Your task to perform on an android device: create a new album in the google photos Image 0: 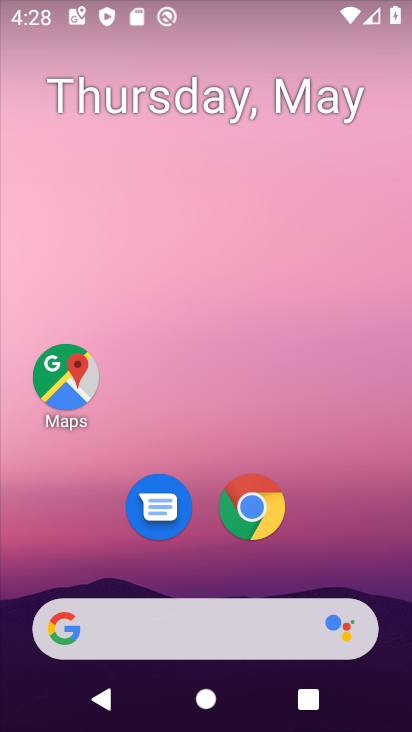
Step 0: drag from (271, 656) to (193, 46)
Your task to perform on an android device: create a new album in the google photos Image 1: 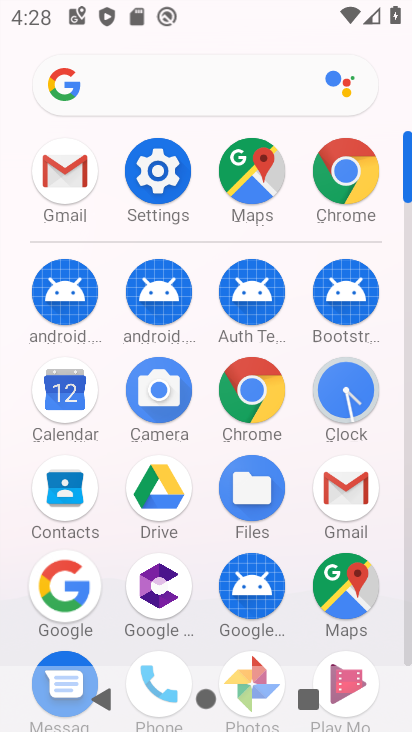
Step 1: drag from (285, 601) to (259, 77)
Your task to perform on an android device: create a new album in the google photos Image 2: 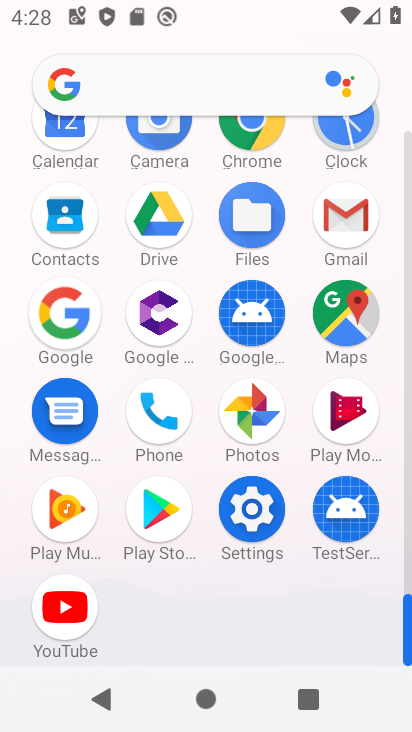
Step 2: click (250, 416)
Your task to perform on an android device: create a new album in the google photos Image 3: 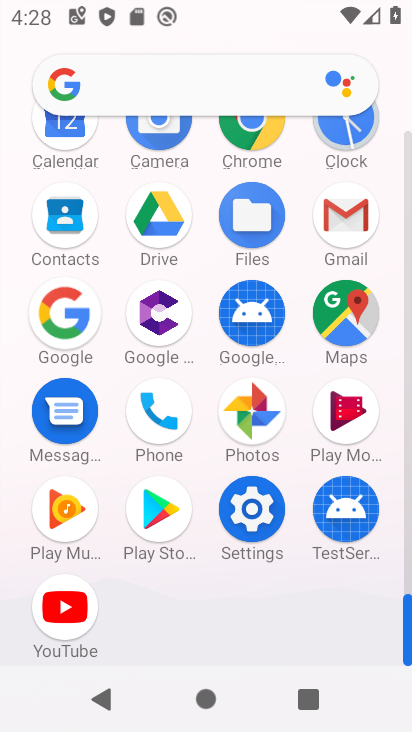
Step 3: click (250, 417)
Your task to perform on an android device: create a new album in the google photos Image 4: 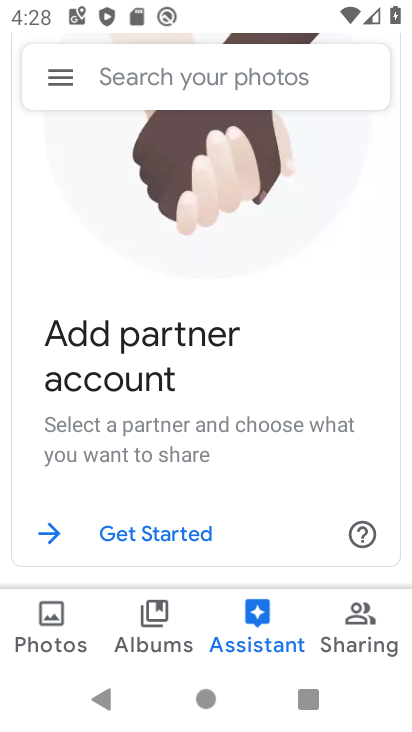
Step 4: click (161, 612)
Your task to perform on an android device: create a new album in the google photos Image 5: 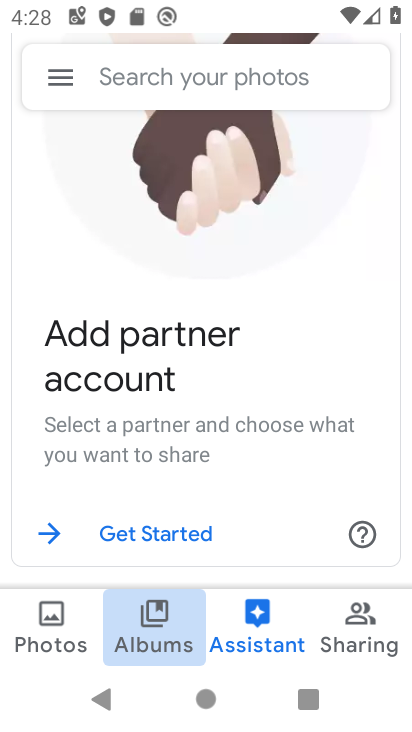
Step 5: click (160, 613)
Your task to perform on an android device: create a new album in the google photos Image 6: 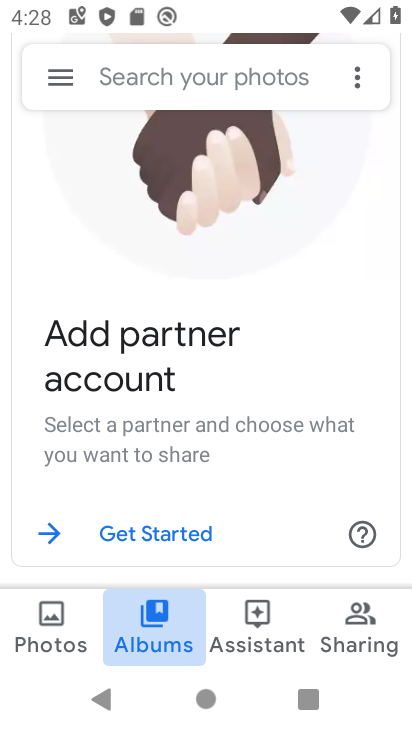
Step 6: click (154, 623)
Your task to perform on an android device: create a new album in the google photos Image 7: 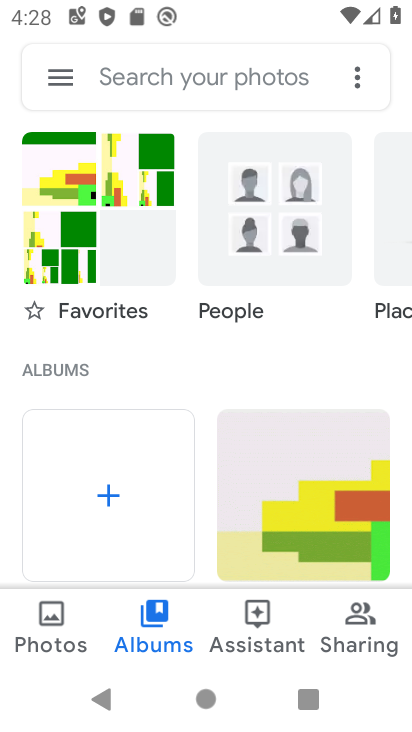
Step 7: click (361, 77)
Your task to perform on an android device: create a new album in the google photos Image 8: 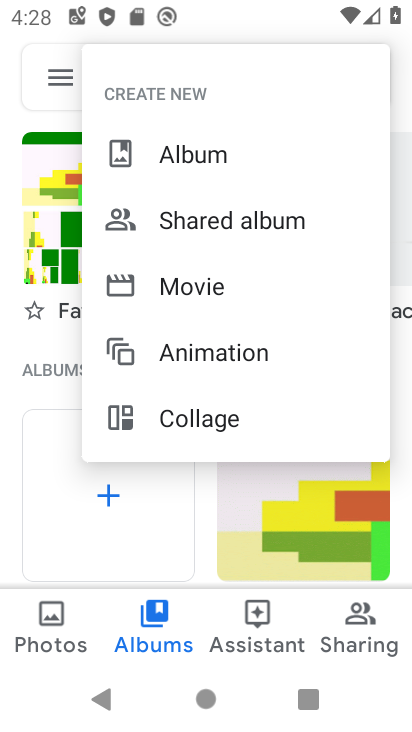
Step 8: click (167, 144)
Your task to perform on an android device: create a new album in the google photos Image 9: 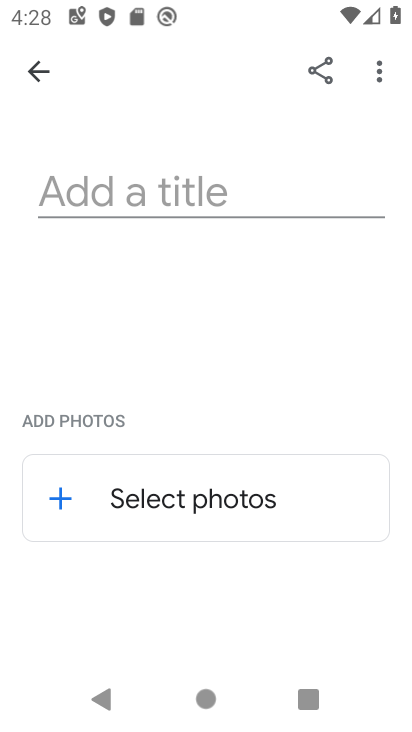
Step 9: click (145, 488)
Your task to perform on an android device: create a new album in the google photos Image 10: 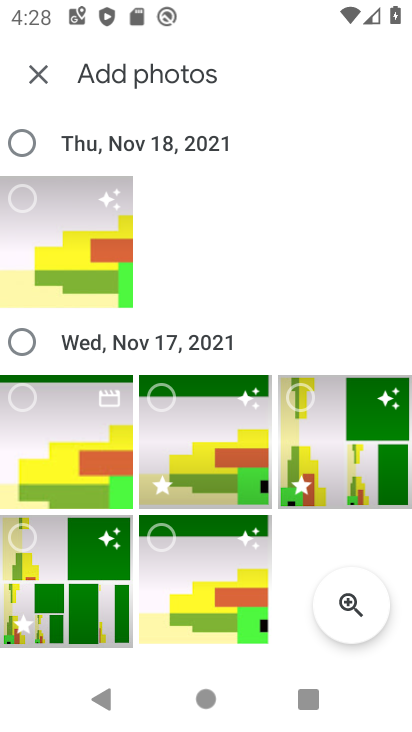
Step 10: click (18, 189)
Your task to perform on an android device: create a new album in the google photos Image 11: 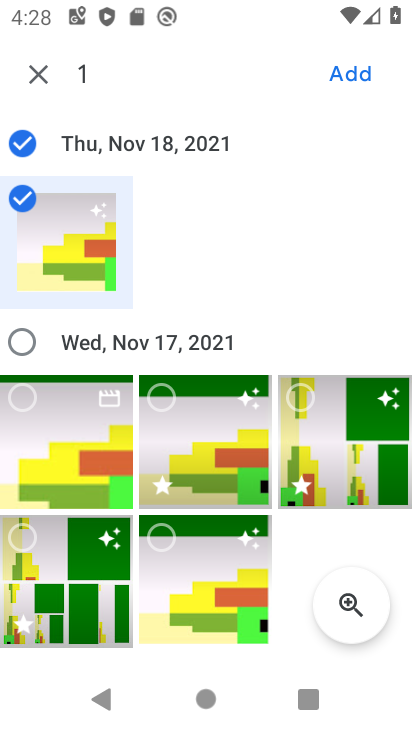
Step 11: click (356, 73)
Your task to perform on an android device: create a new album in the google photos Image 12: 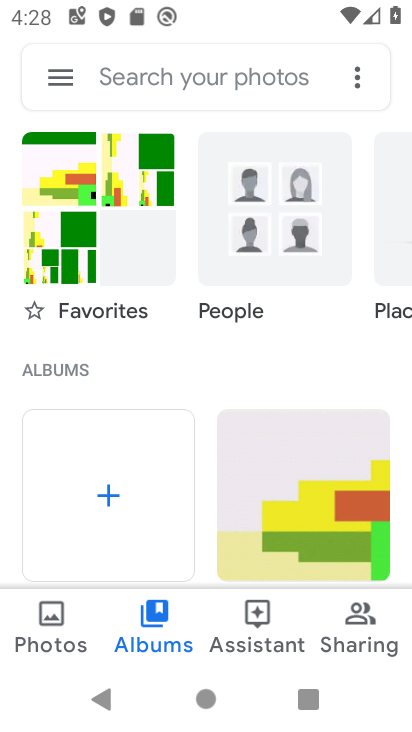
Step 12: click (103, 496)
Your task to perform on an android device: create a new album in the google photos Image 13: 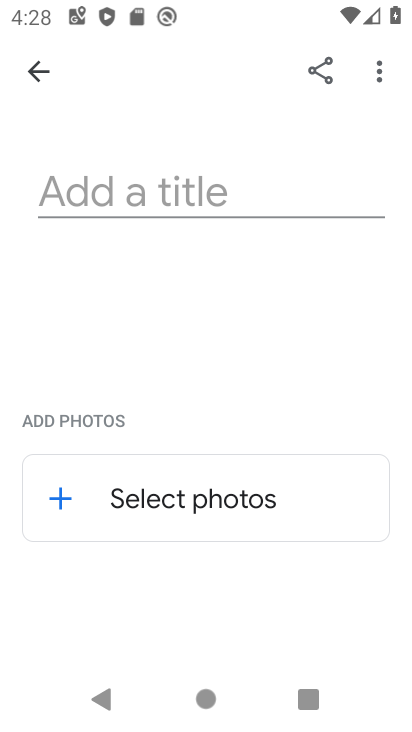
Step 13: click (187, 489)
Your task to perform on an android device: create a new album in the google photos Image 14: 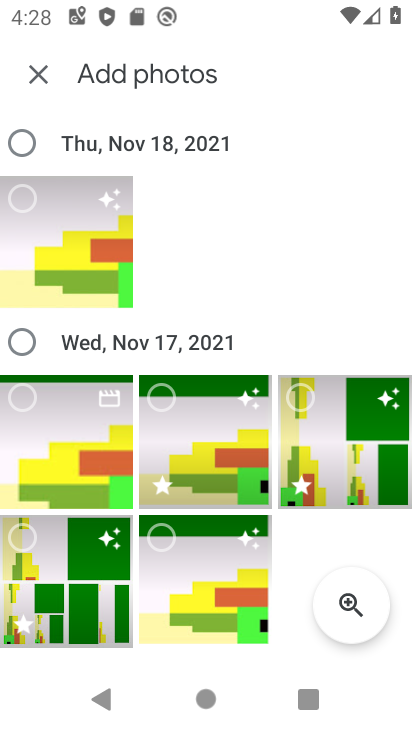
Step 14: click (76, 186)
Your task to perform on an android device: create a new album in the google photos Image 15: 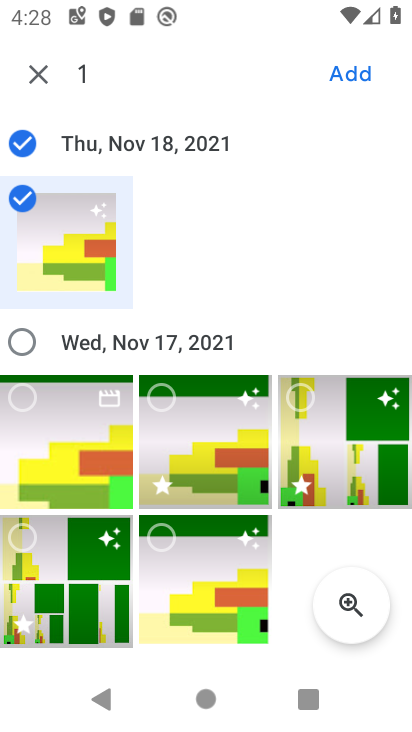
Step 15: click (22, 146)
Your task to perform on an android device: create a new album in the google photos Image 16: 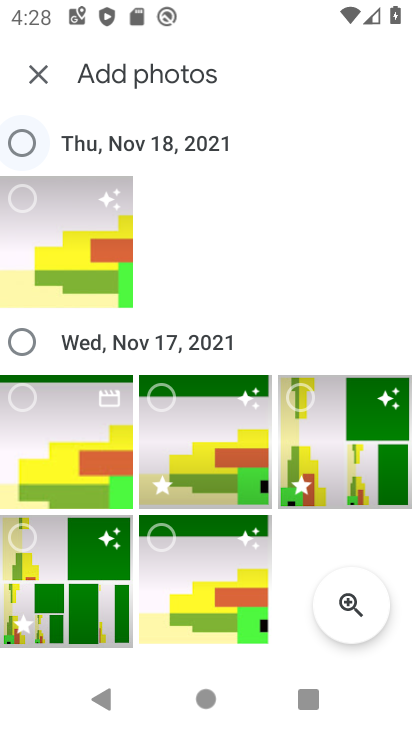
Step 16: click (334, 65)
Your task to perform on an android device: create a new album in the google photos Image 17: 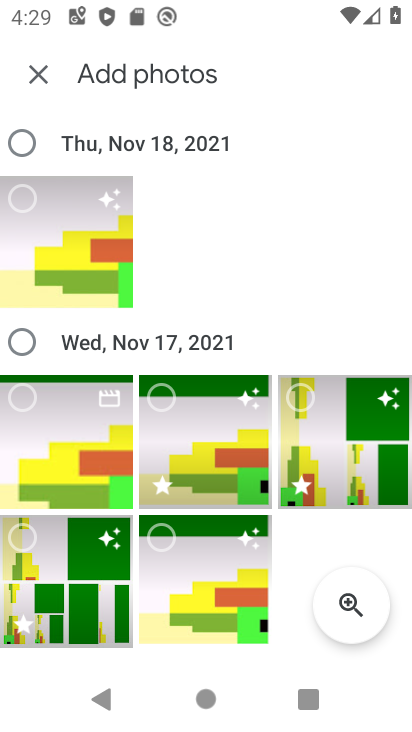
Step 17: click (34, 147)
Your task to perform on an android device: create a new album in the google photos Image 18: 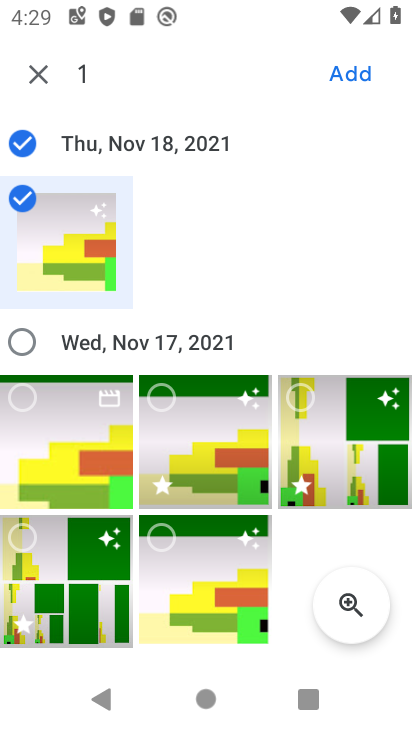
Step 18: click (365, 78)
Your task to perform on an android device: create a new album in the google photos Image 19: 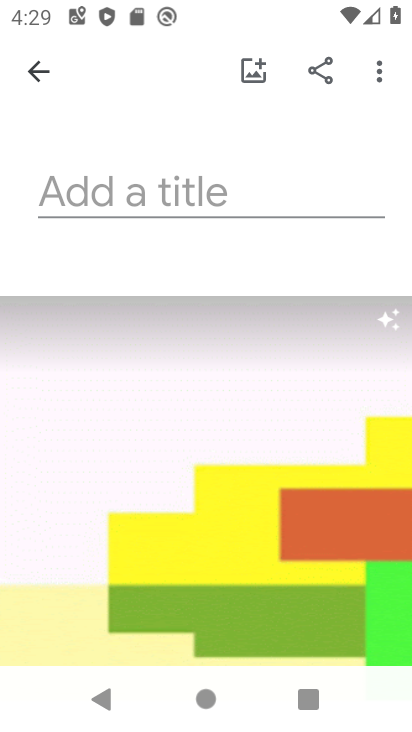
Step 19: click (101, 184)
Your task to perform on an android device: create a new album in the google photos Image 20: 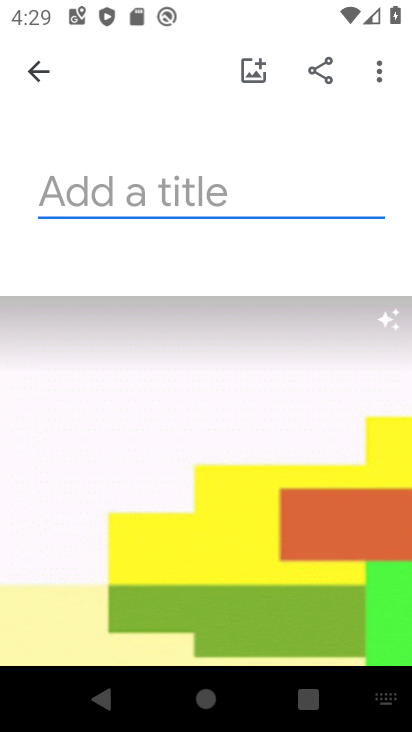
Step 20: type "gdgfuyu"
Your task to perform on an android device: create a new album in the google photos Image 21: 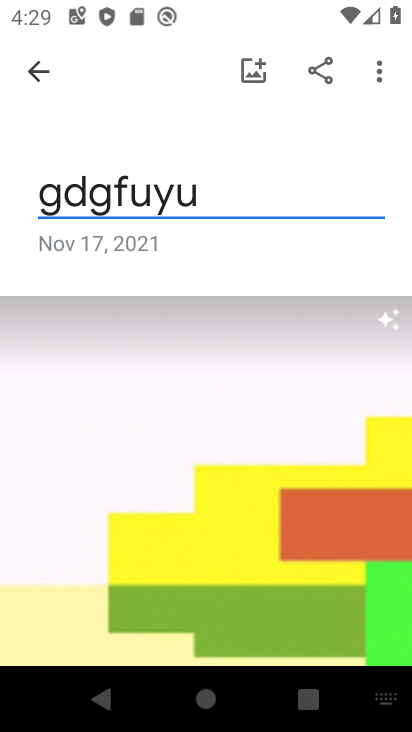
Step 21: task complete